Your task to perform on an android device: read, delete, or share a saved page in the chrome app Image 0: 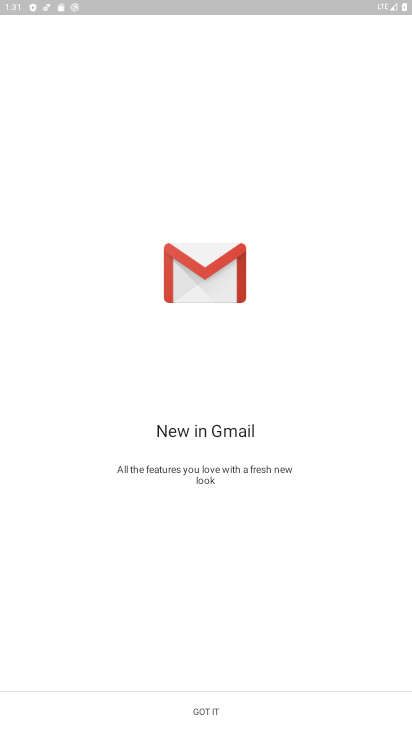
Step 0: press home button
Your task to perform on an android device: read, delete, or share a saved page in the chrome app Image 1: 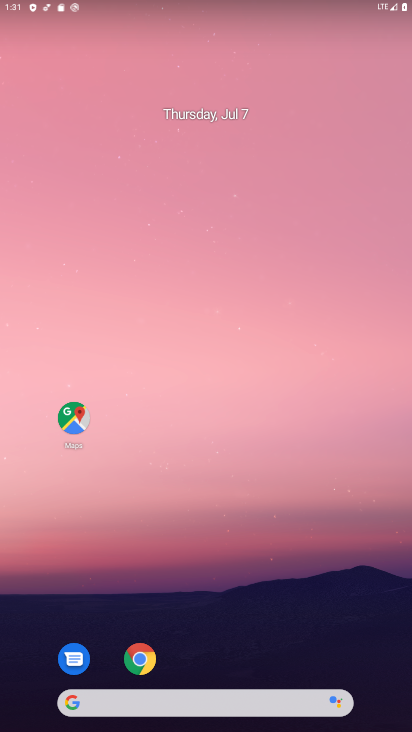
Step 1: click (140, 661)
Your task to perform on an android device: read, delete, or share a saved page in the chrome app Image 2: 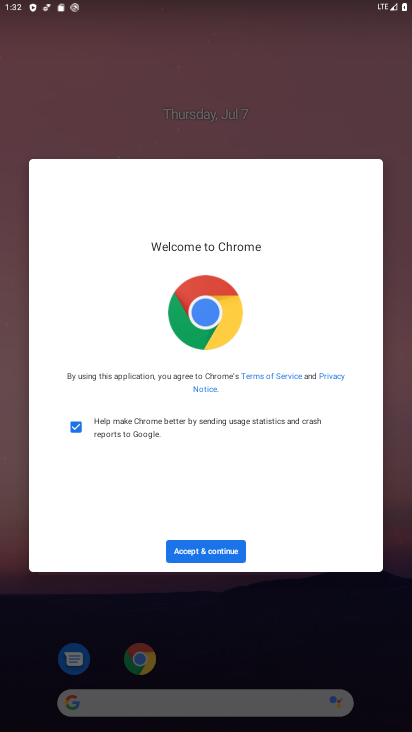
Step 2: click (202, 554)
Your task to perform on an android device: read, delete, or share a saved page in the chrome app Image 3: 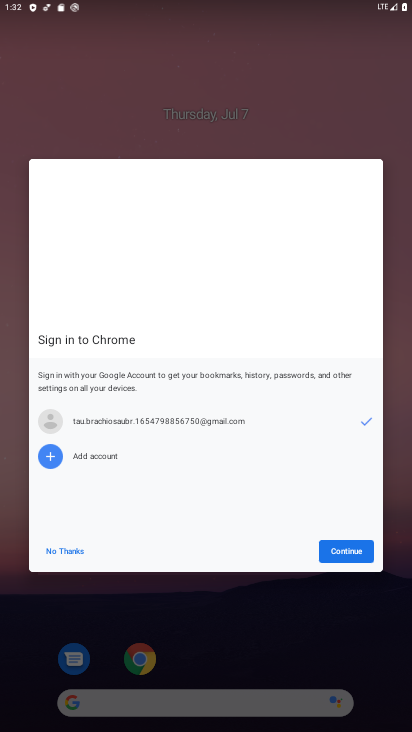
Step 3: click (345, 547)
Your task to perform on an android device: read, delete, or share a saved page in the chrome app Image 4: 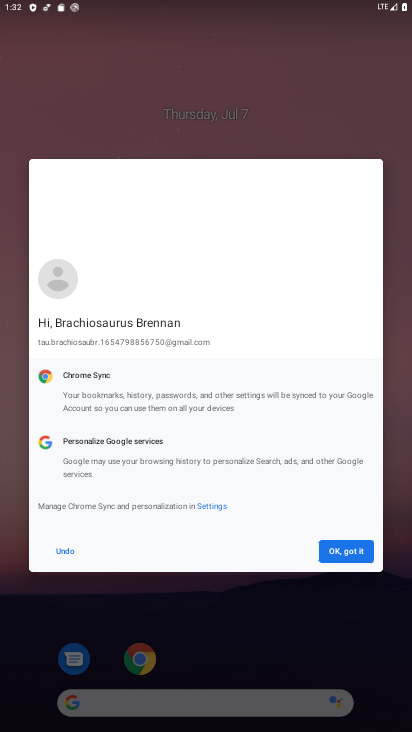
Step 4: click (345, 554)
Your task to perform on an android device: read, delete, or share a saved page in the chrome app Image 5: 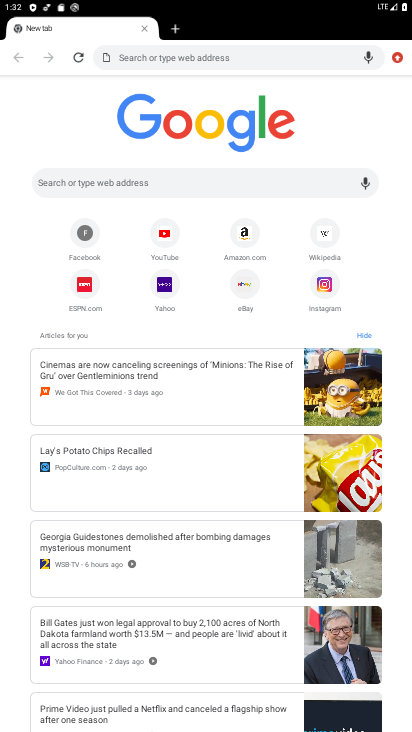
Step 5: click (400, 58)
Your task to perform on an android device: read, delete, or share a saved page in the chrome app Image 6: 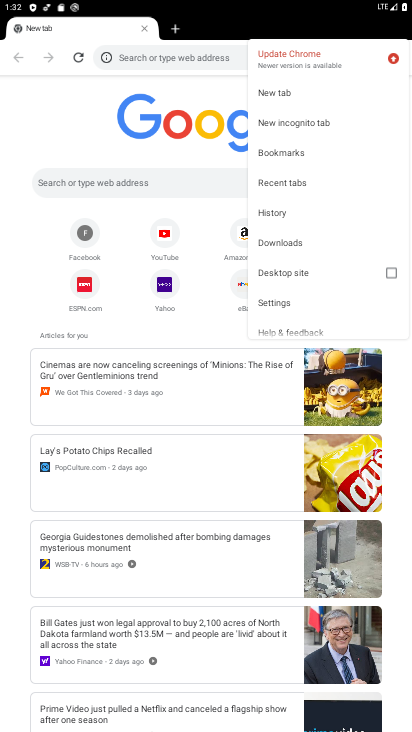
Step 6: click (288, 240)
Your task to perform on an android device: read, delete, or share a saved page in the chrome app Image 7: 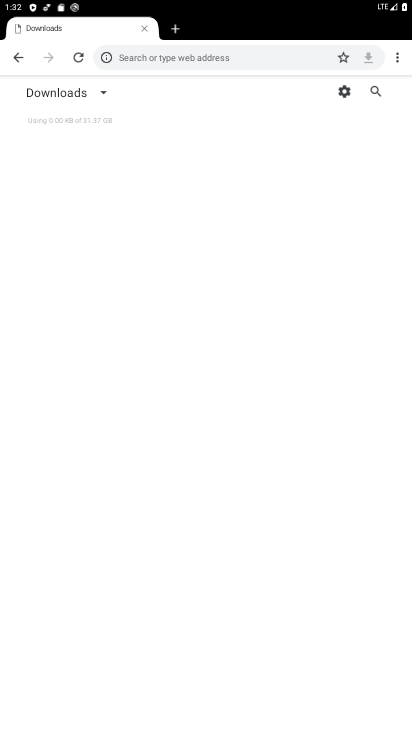
Step 7: click (106, 96)
Your task to perform on an android device: read, delete, or share a saved page in the chrome app Image 8: 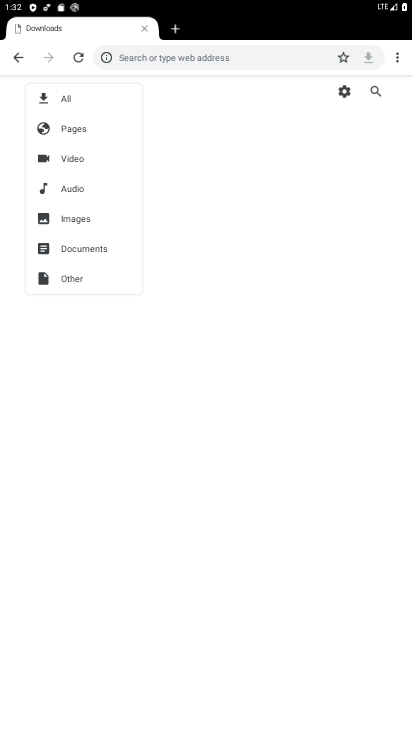
Step 8: click (82, 194)
Your task to perform on an android device: read, delete, or share a saved page in the chrome app Image 9: 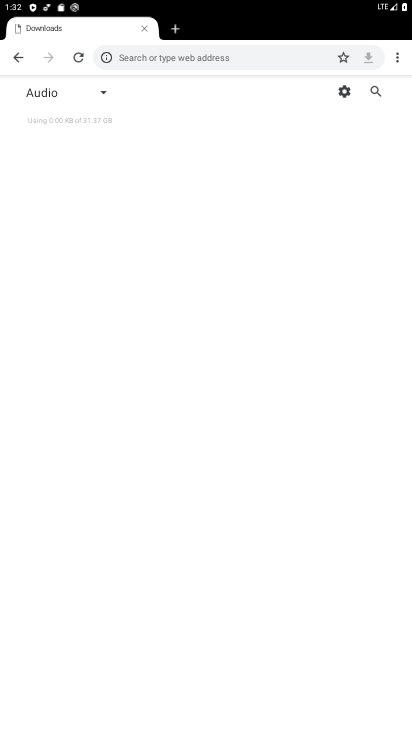
Step 9: click (103, 97)
Your task to perform on an android device: read, delete, or share a saved page in the chrome app Image 10: 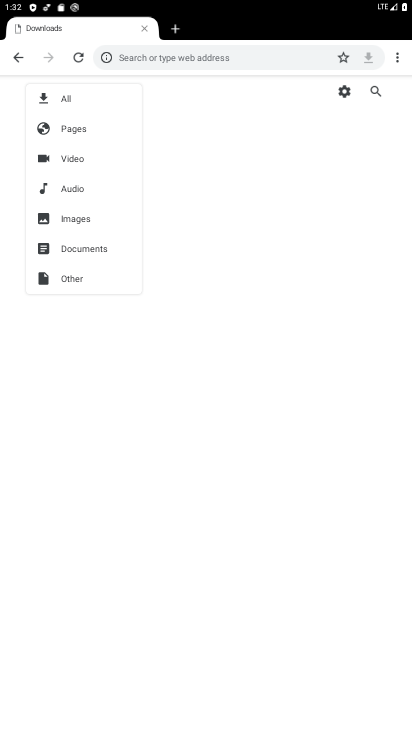
Step 10: click (80, 254)
Your task to perform on an android device: read, delete, or share a saved page in the chrome app Image 11: 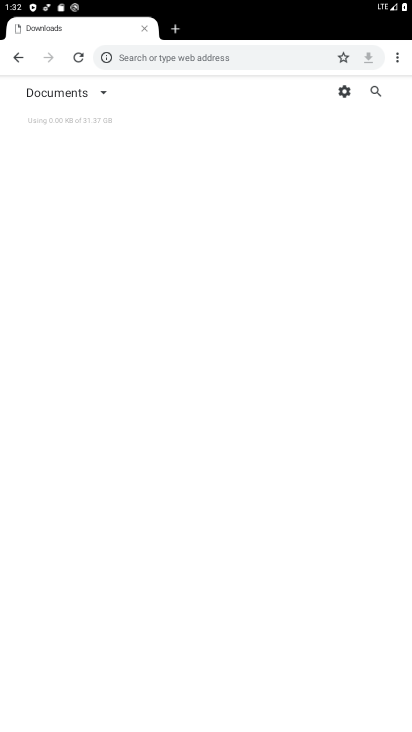
Step 11: click (103, 93)
Your task to perform on an android device: read, delete, or share a saved page in the chrome app Image 12: 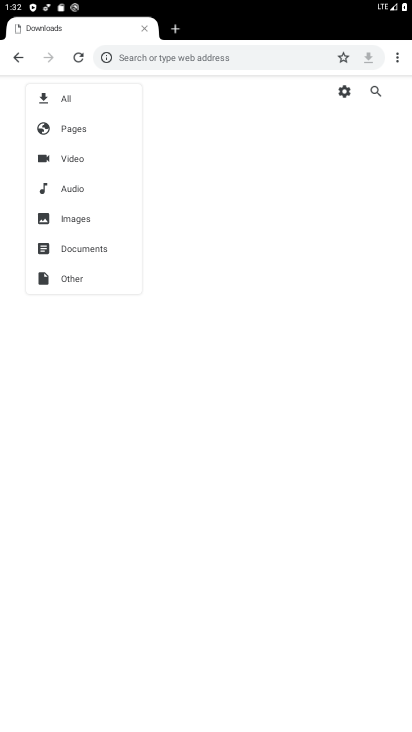
Step 12: click (78, 277)
Your task to perform on an android device: read, delete, or share a saved page in the chrome app Image 13: 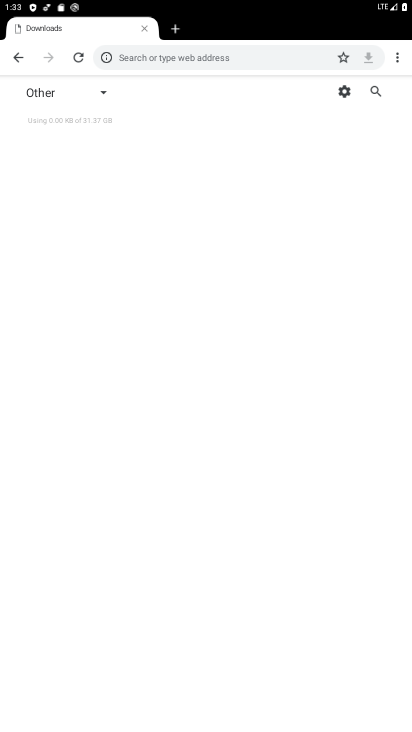
Step 13: task complete